Your task to perform on an android device: Open sound settings Image 0: 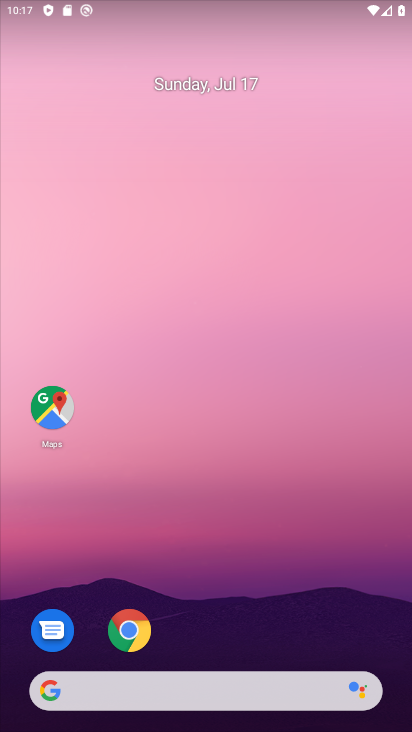
Step 0: drag from (396, 649) to (378, 63)
Your task to perform on an android device: Open sound settings Image 1: 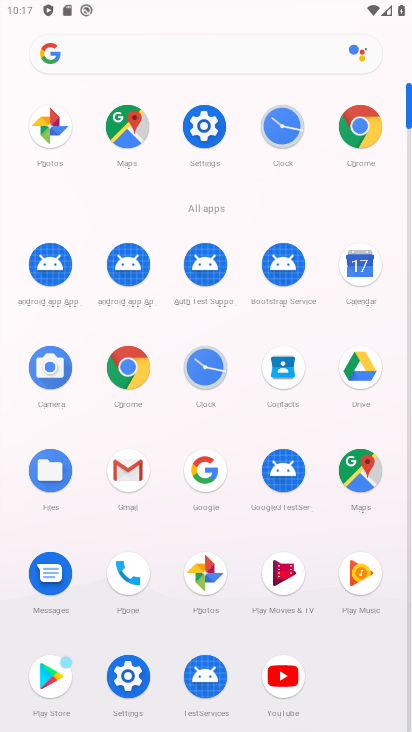
Step 1: click (127, 675)
Your task to perform on an android device: Open sound settings Image 2: 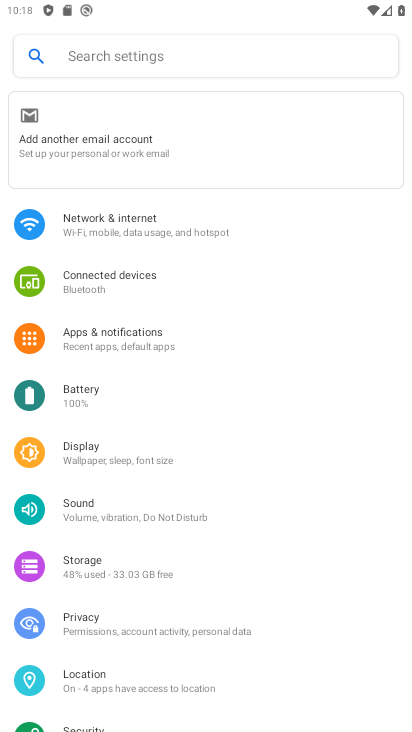
Step 2: click (88, 511)
Your task to perform on an android device: Open sound settings Image 3: 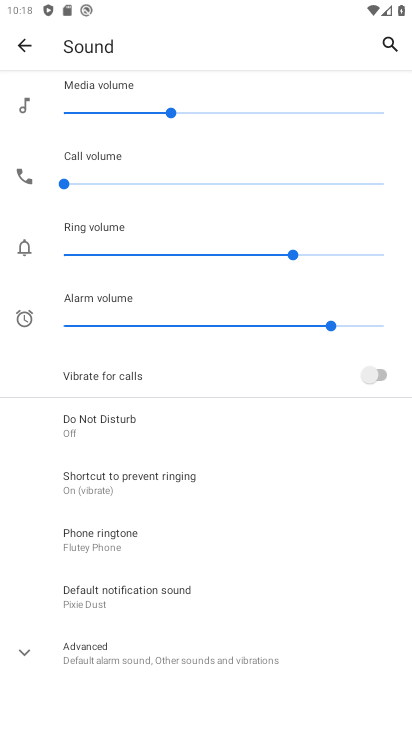
Step 3: click (23, 654)
Your task to perform on an android device: Open sound settings Image 4: 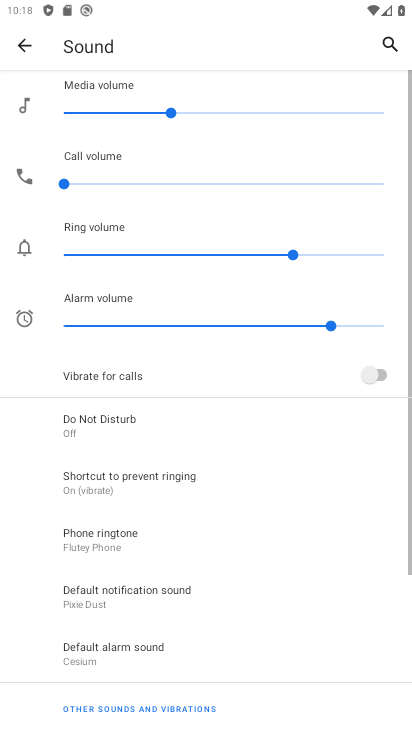
Step 4: task complete